Your task to perform on an android device: Search for "jbl charge 4" on bestbuy.com, select the first entry, add it to the cart, then select checkout. Image 0: 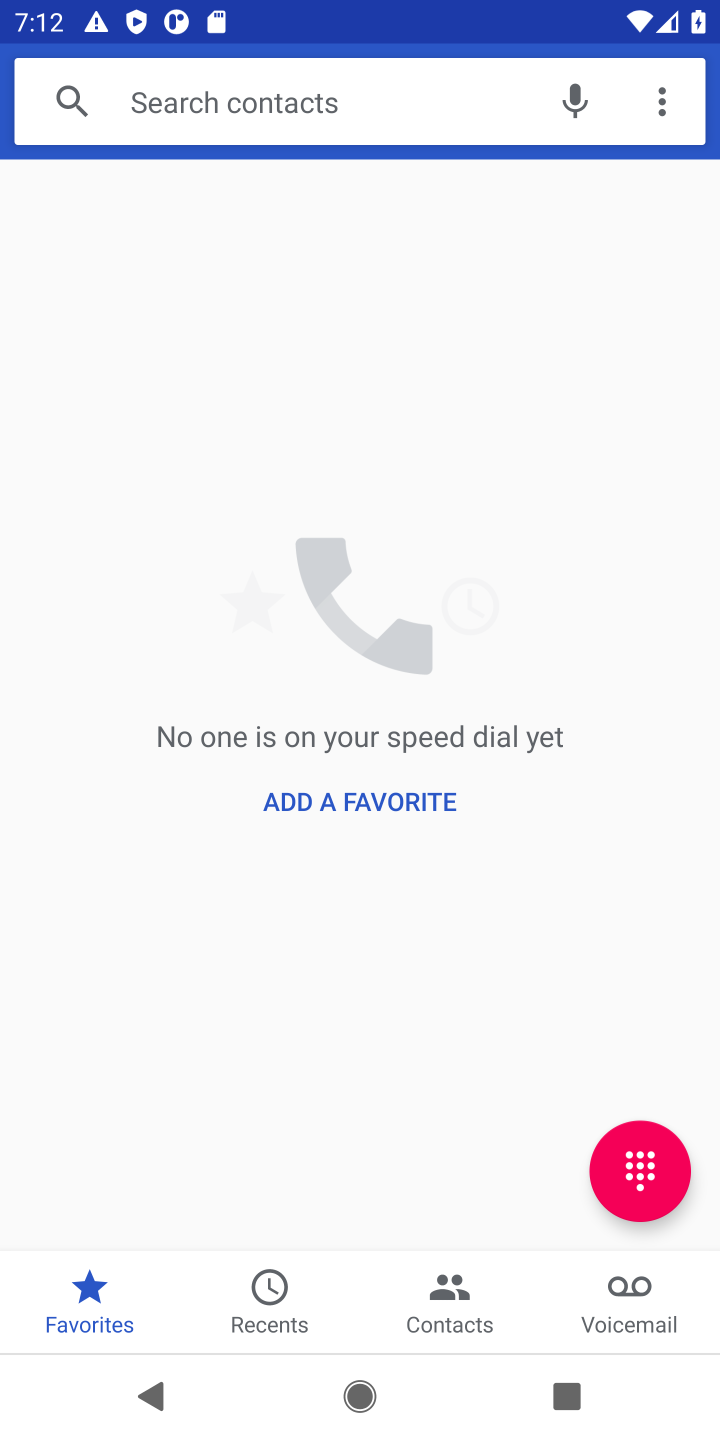
Step 0: press home button
Your task to perform on an android device: Search for "jbl charge 4" on bestbuy.com, select the first entry, add it to the cart, then select checkout. Image 1: 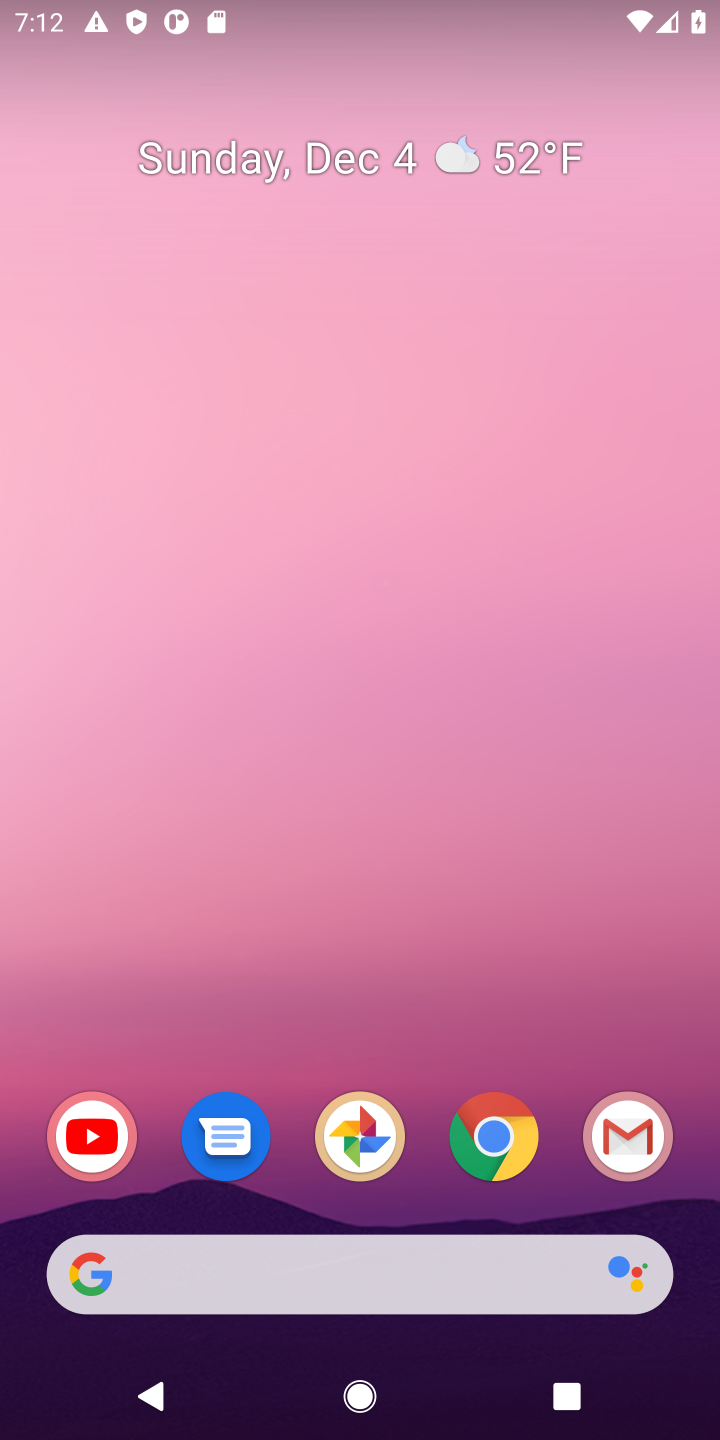
Step 1: click (518, 1131)
Your task to perform on an android device: Search for "jbl charge 4" on bestbuy.com, select the first entry, add it to the cart, then select checkout. Image 2: 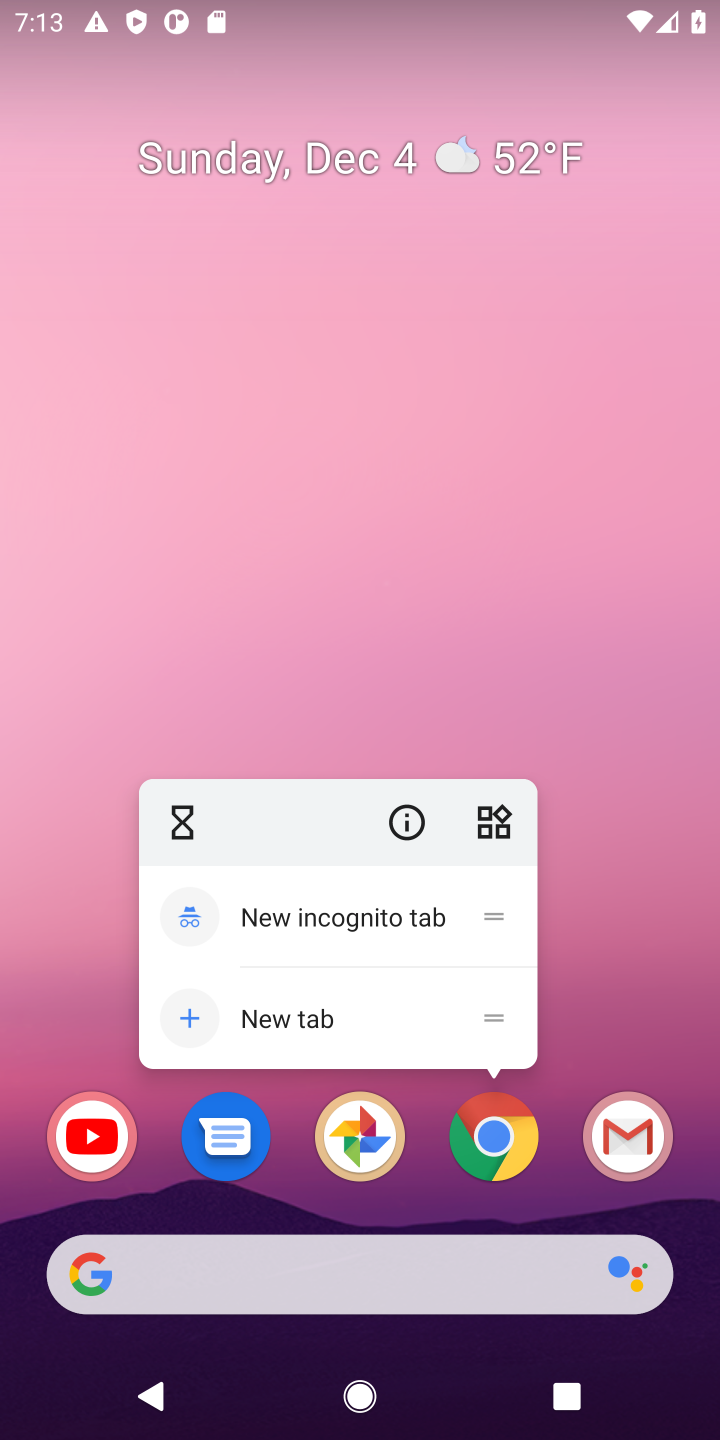
Step 2: click (502, 1148)
Your task to perform on an android device: Search for "jbl charge 4" on bestbuy.com, select the first entry, add it to the cart, then select checkout. Image 3: 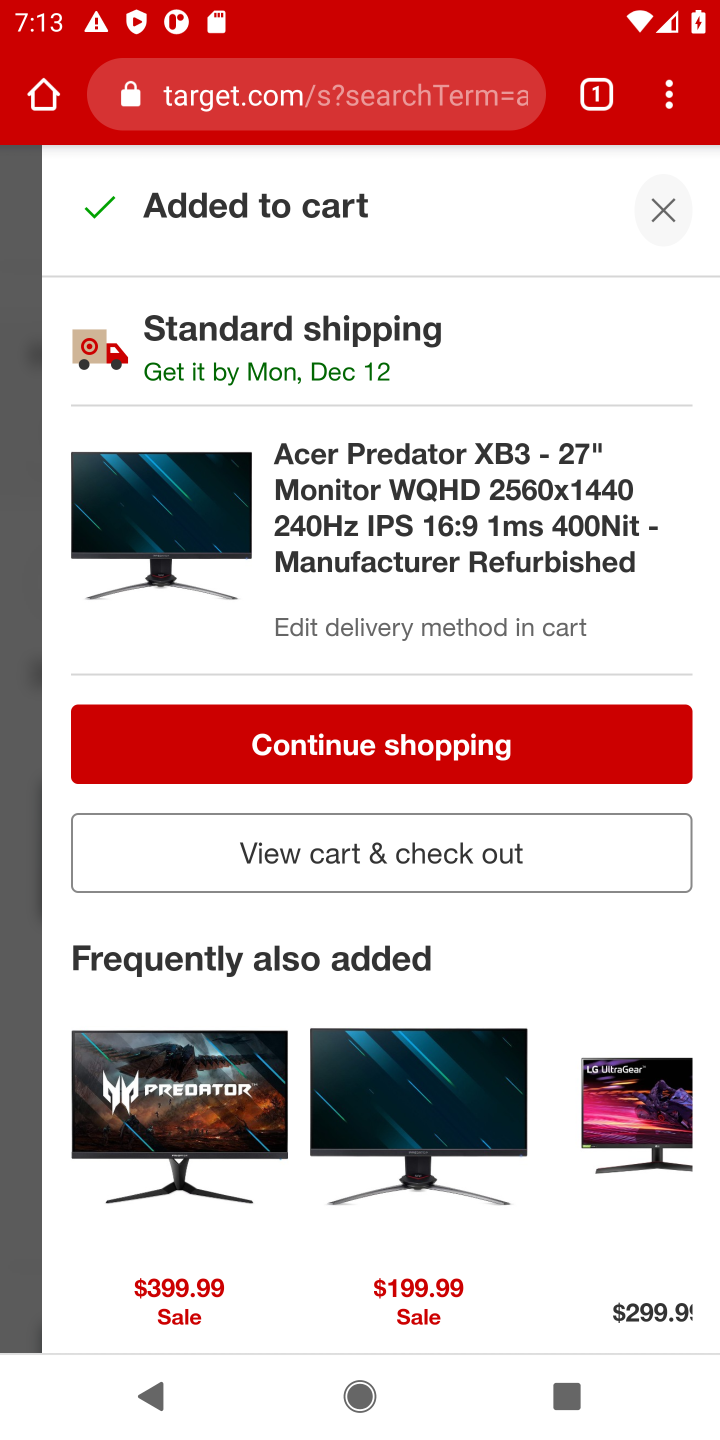
Step 3: click (304, 108)
Your task to perform on an android device: Search for "jbl charge 4" on bestbuy.com, select the first entry, add it to the cart, then select checkout. Image 4: 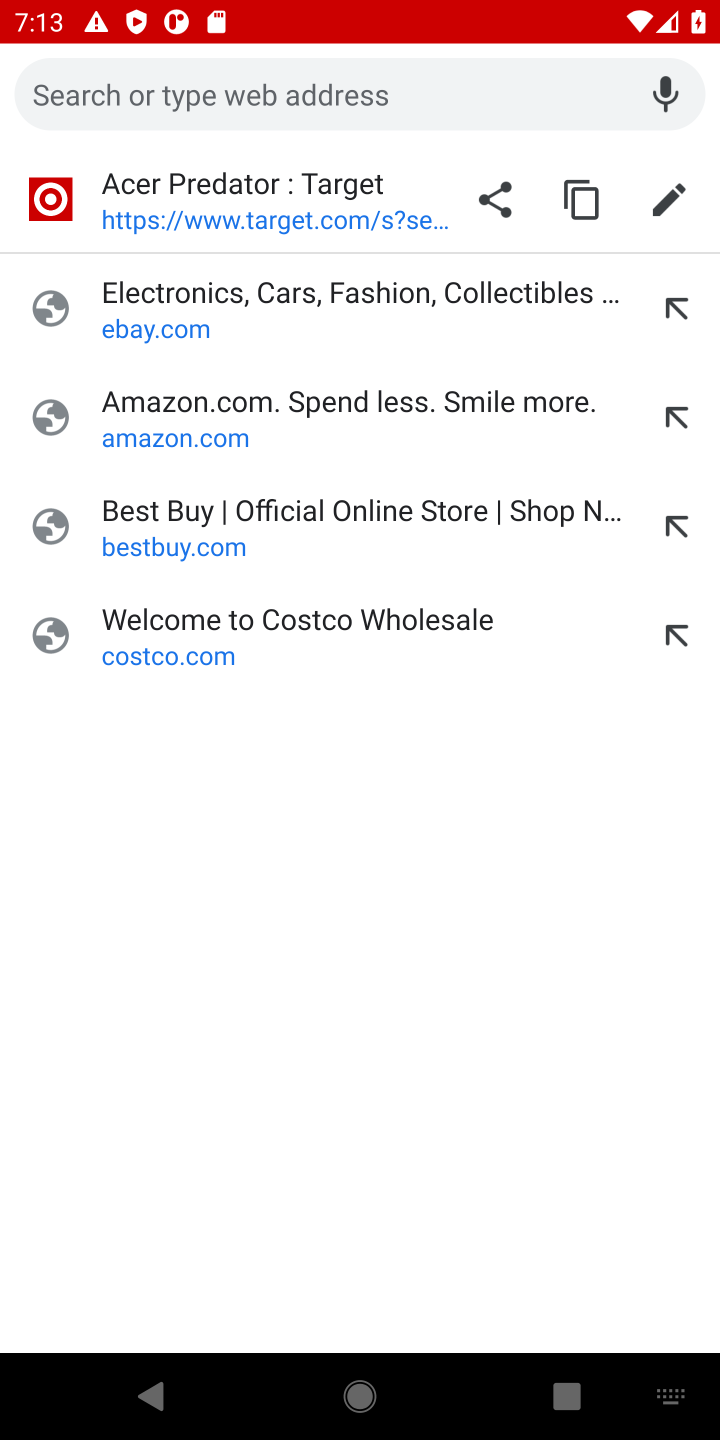
Step 4: click (165, 531)
Your task to perform on an android device: Search for "jbl charge 4" on bestbuy.com, select the first entry, add it to the cart, then select checkout. Image 5: 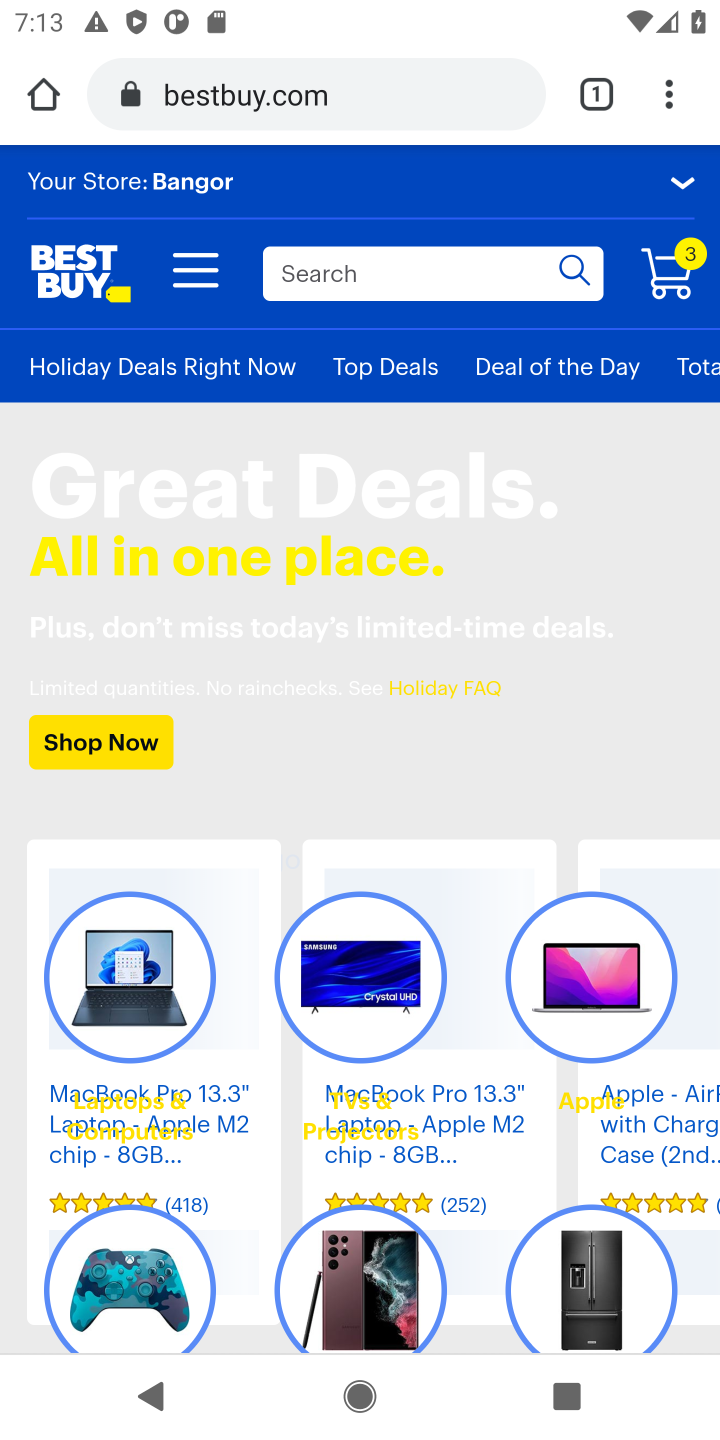
Step 5: click (314, 277)
Your task to perform on an android device: Search for "jbl charge 4" on bestbuy.com, select the first entry, add it to the cart, then select checkout. Image 6: 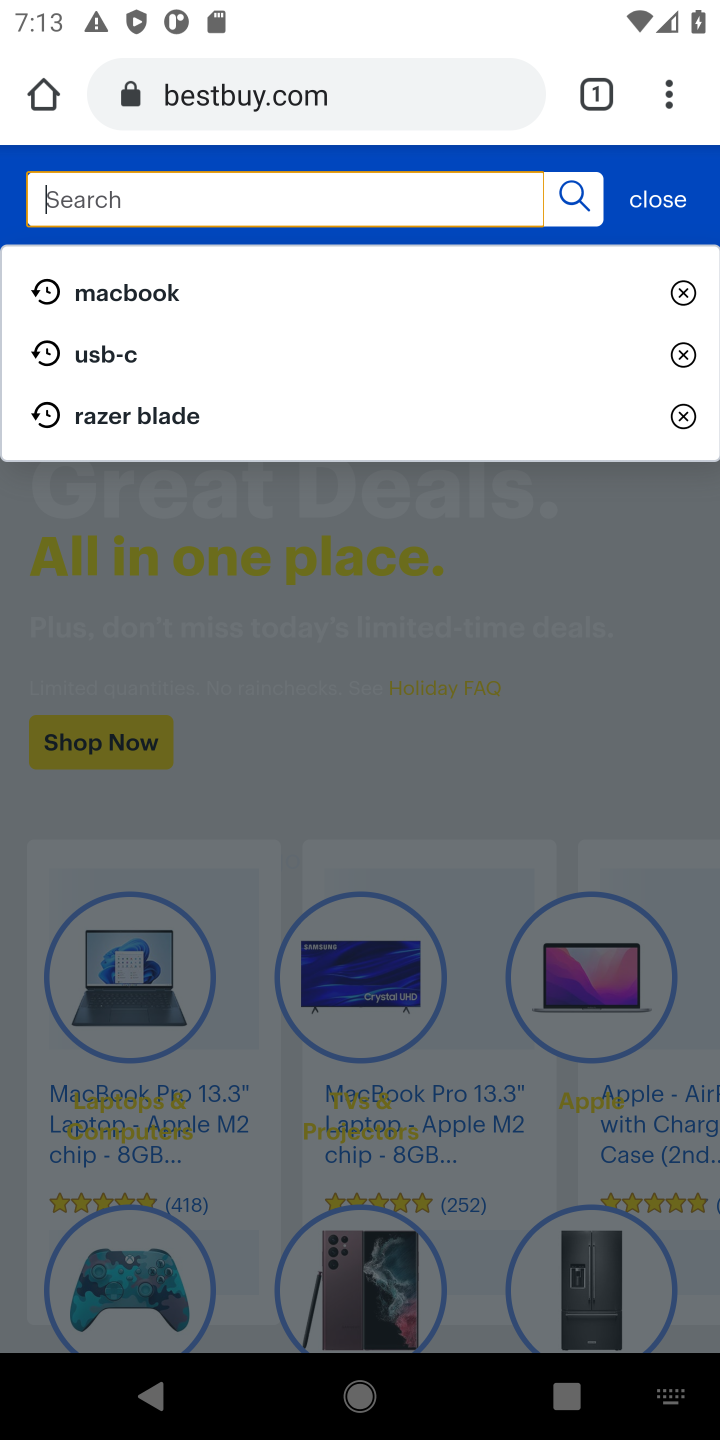
Step 6: type "jbl charge 4"
Your task to perform on an android device: Search for "jbl charge 4" on bestbuy.com, select the first entry, add it to the cart, then select checkout. Image 7: 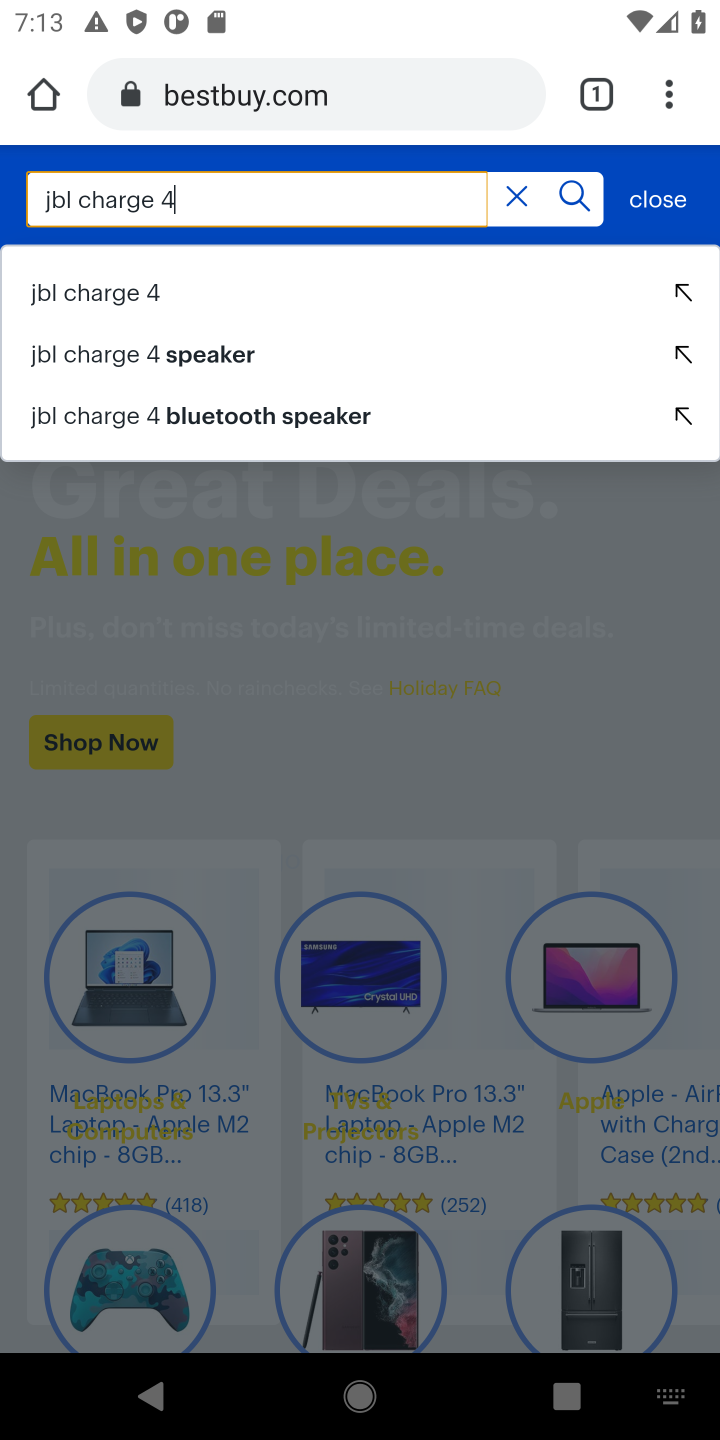
Step 7: click (119, 302)
Your task to perform on an android device: Search for "jbl charge 4" on bestbuy.com, select the first entry, add it to the cart, then select checkout. Image 8: 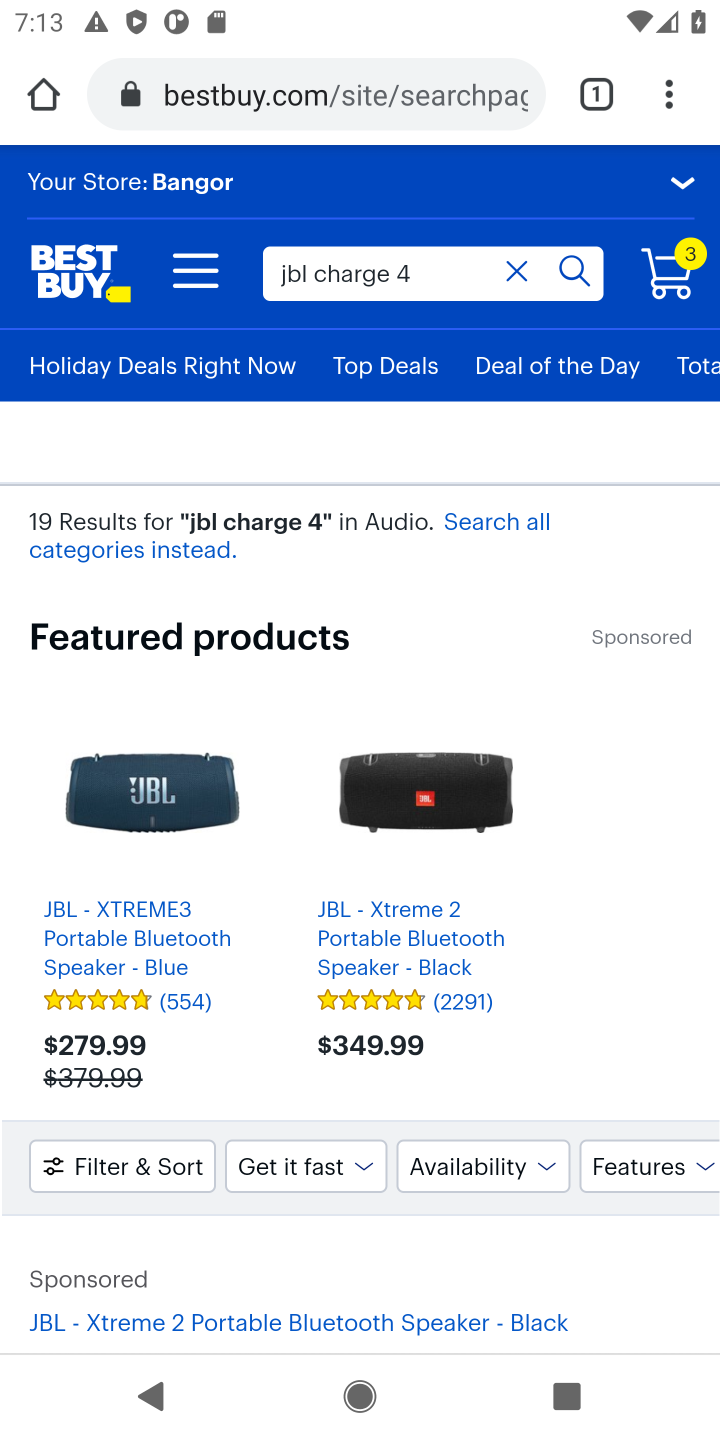
Step 8: task complete